Your task to perform on an android device: Open Youtube and go to the subscriptions tab Image 0: 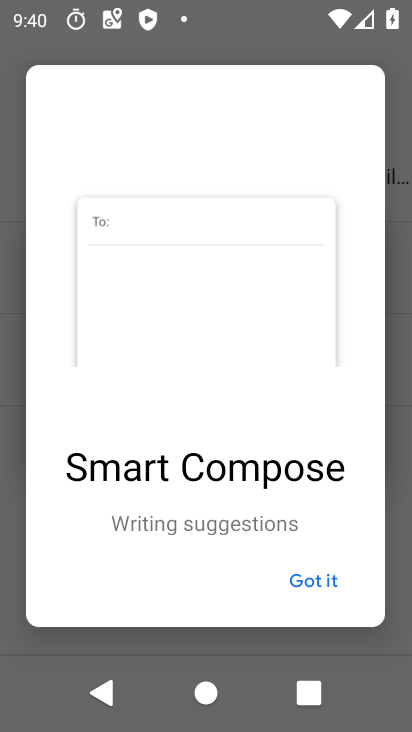
Step 0: press home button
Your task to perform on an android device: Open Youtube and go to the subscriptions tab Image 1: 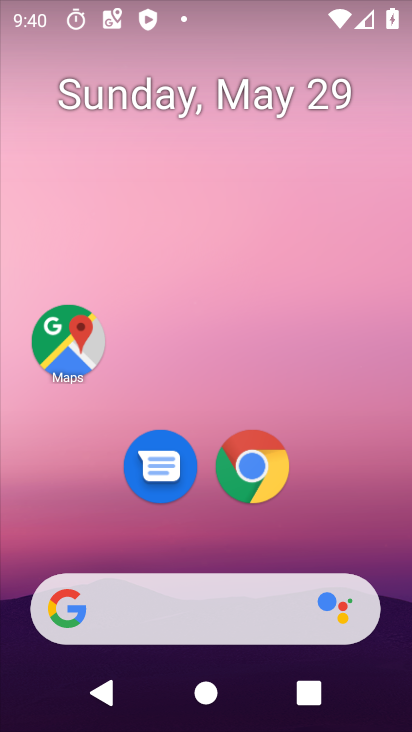
Step 1: drag from (185, 554) to (199, 189)
Your task to perform on an android device: Open Youtube and go to the subscriptions tab Image 2: 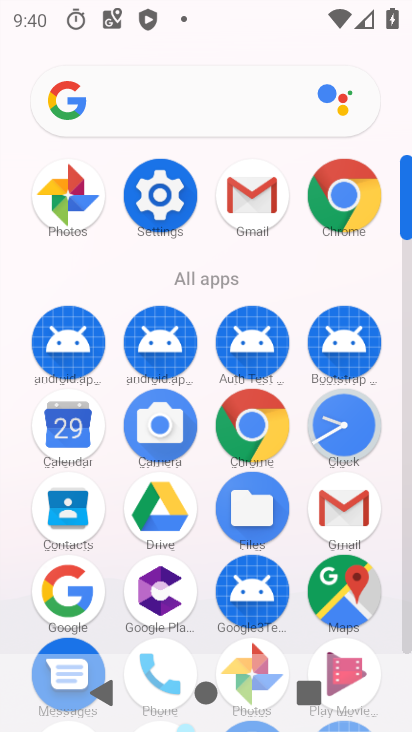
Step 2: drag from (205, 560) to (227, 201)
Your task to perform on an android device: Open Youtube and go to the subscriptions tab Image 3: 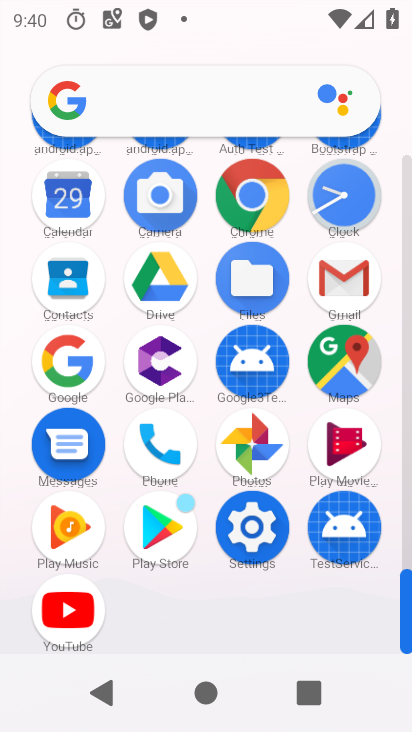
Step 3: click (74, 606)
Your task to perform on an android device: Open Youtube and go to the subscriptions tab Image 4: 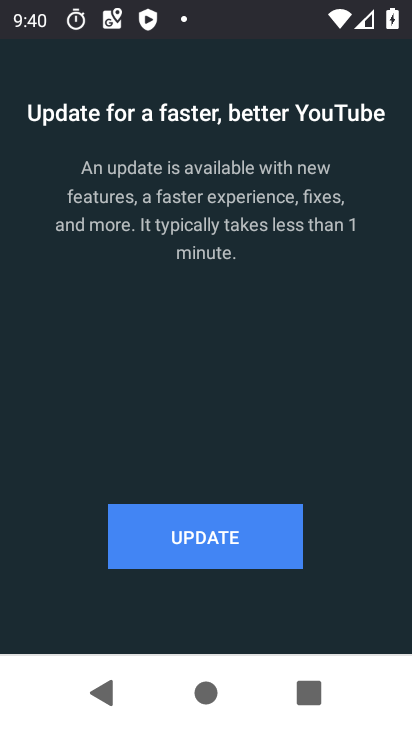
Step 4: click (292, 549)
Your task to perform on an android device: Open Youtube and go to the subscriptions tab Image 5: 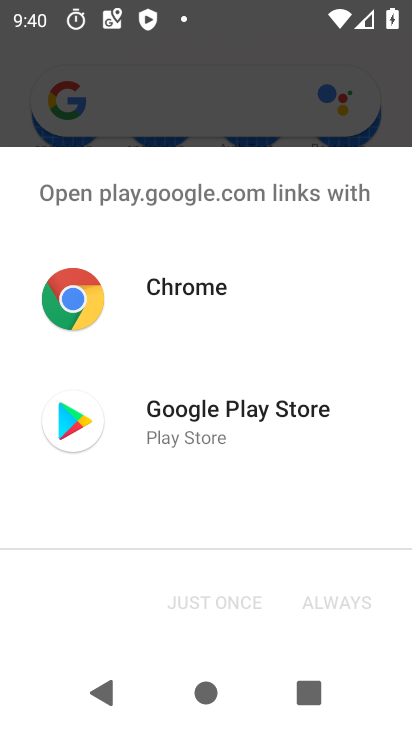
Step 5: click (159, 427)
Your task to perform on an android device: Open Youtube and go to the subscriptions tab Image 6: 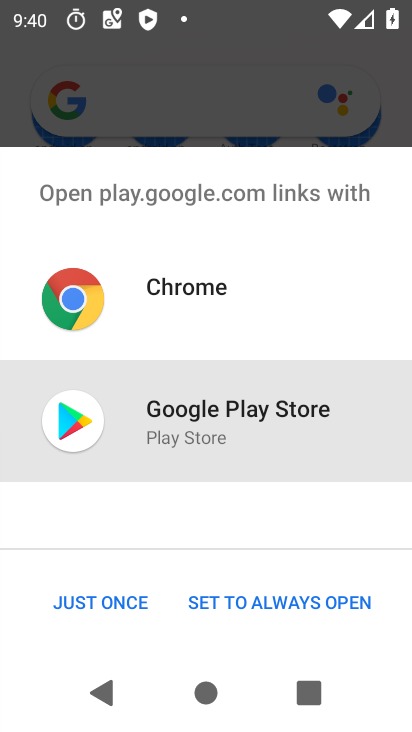
Step 6: click (115, 604)
Your task to perform on an android device: Open Youtube and go to the subscriptions tab Image 7: 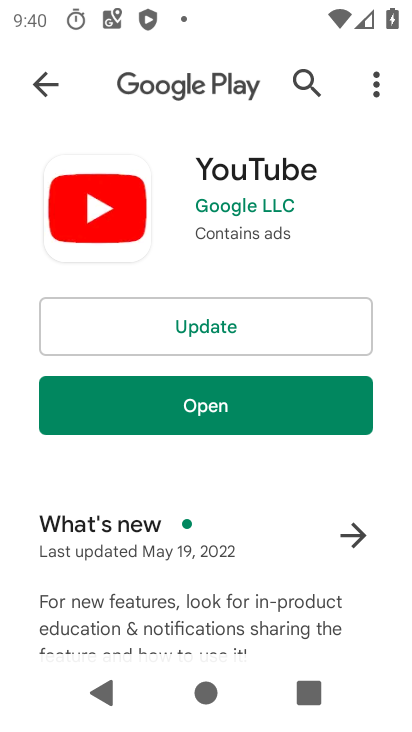
Step 7: click (237, 341)
Your task to perform on an android device: Open Youtube and go to the subscriptions tab Image 8: 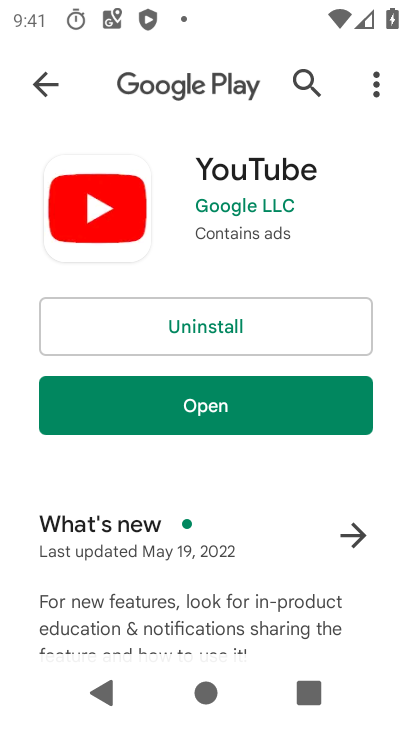
Step 8: click (237, 404)
Your task to perform on an android device: Open Youtube and go to the subscriptions tab Image 9: 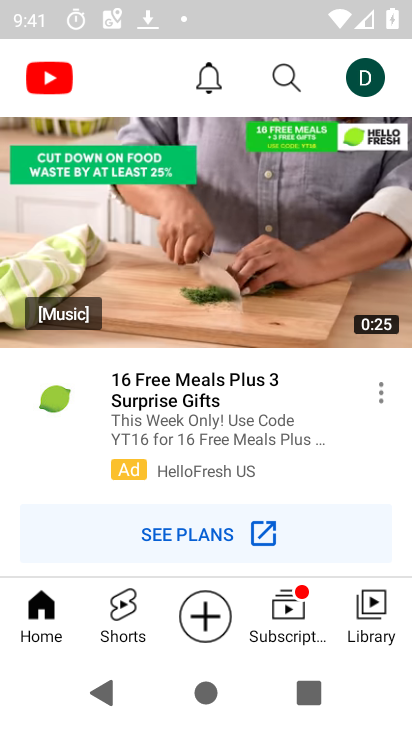
Step 9: click (281, 608)
Your task to perform on an android device: Open Youtube and go to the subscriptions tab Image 10: 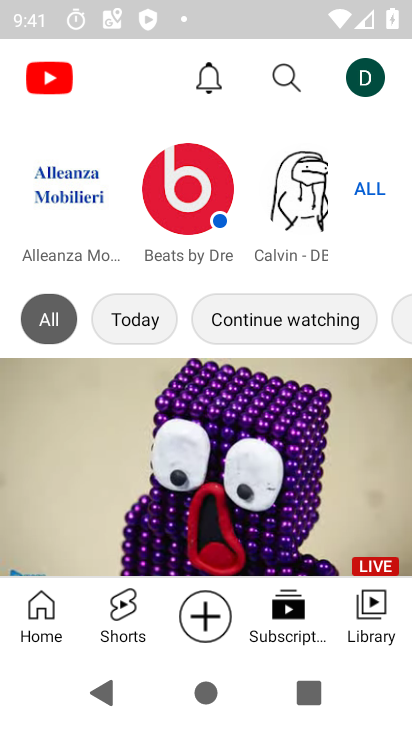
Step 10: task complete